Your task to perform on an android device: open app "Adobe Acrobat Reader: Edit PDF" (install if not already installed) Image 0: 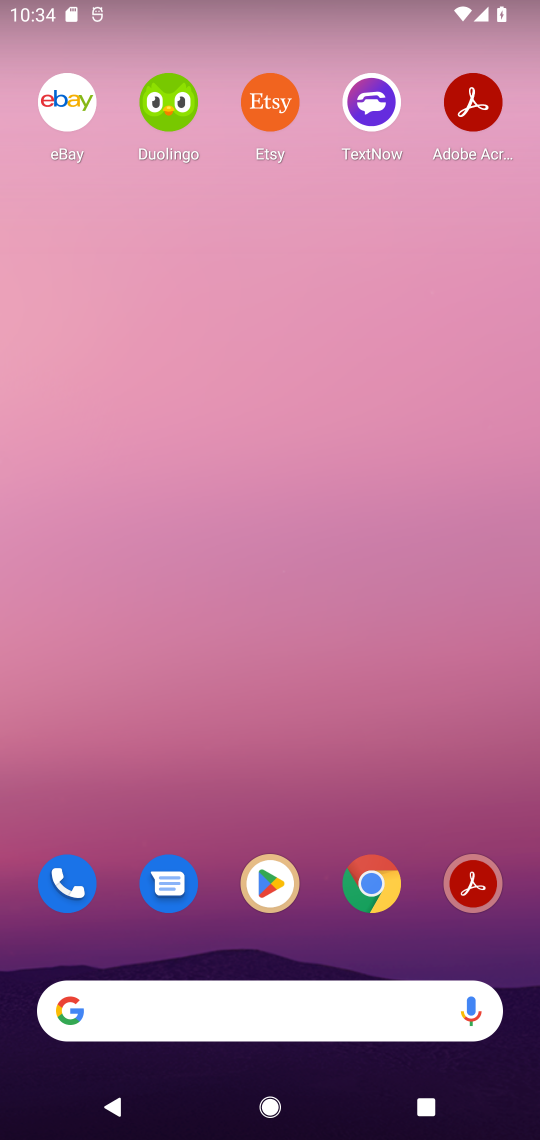
Step 0: drag from (313, 969) to (218, 208)
Your task to perform on an android device: open app "Adobe Acrobat Reader: Edit PDF" (install if not already installed) Image 1: 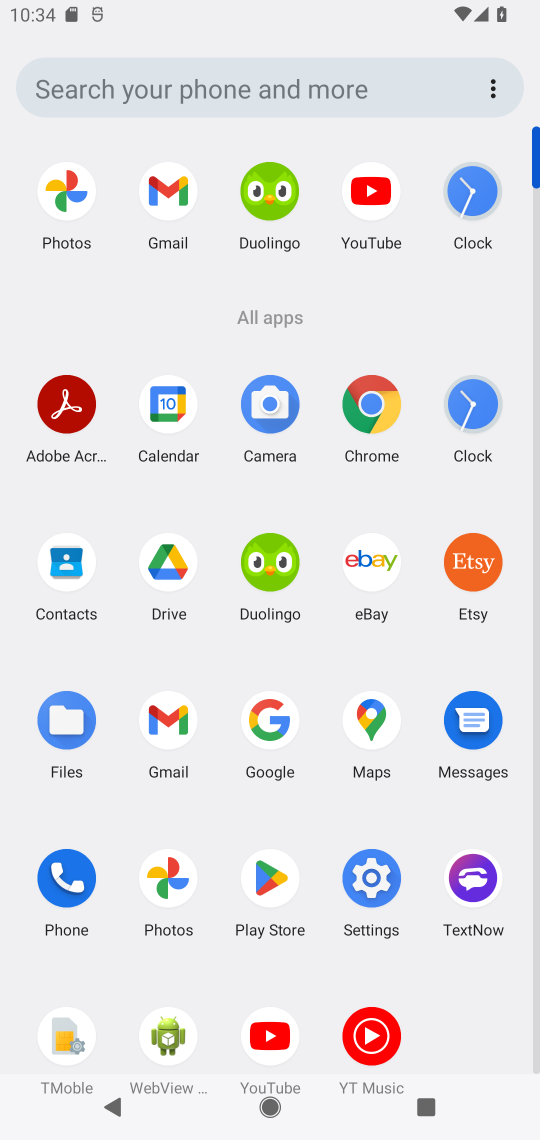
Step 1: click (66, 404)
Your task to perform on an android device: open app "Adobe Acrobat Reader: Edit PDF" (install if not already installed) Image 2: 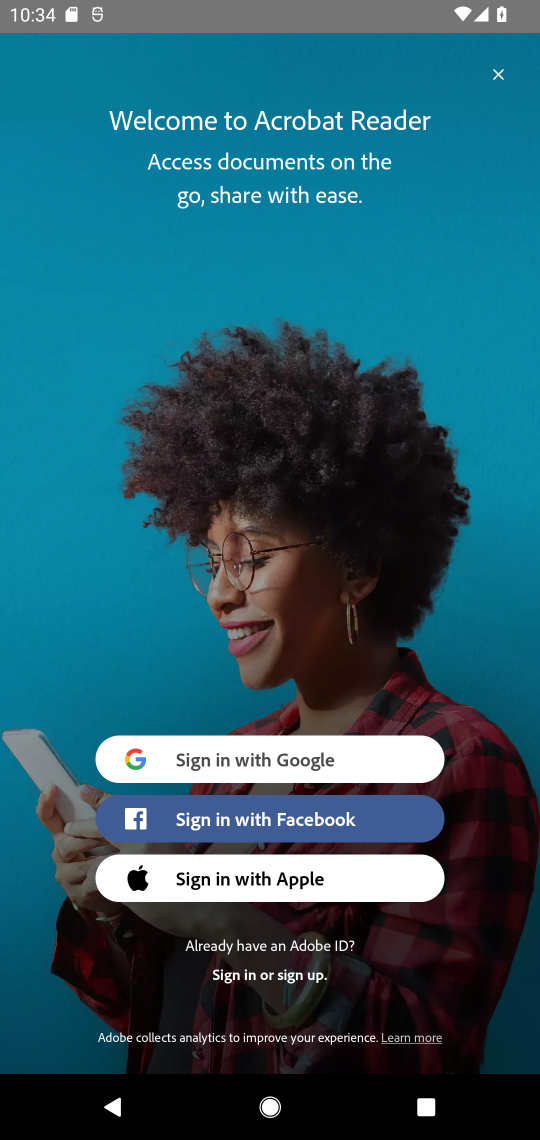
Step 2: task complete